Your task to perform on an android device: When is my next appointment? Image 0: 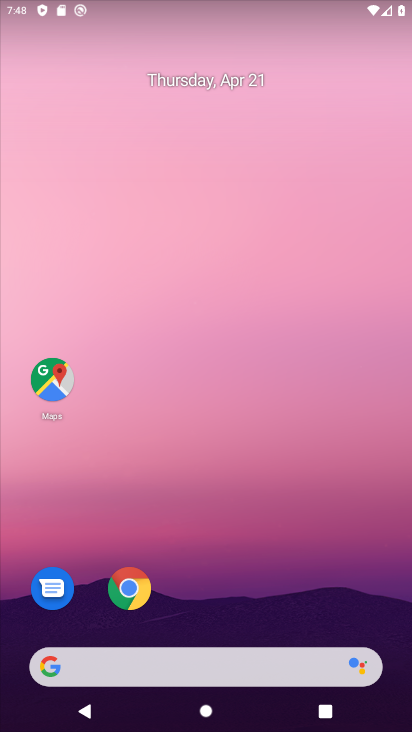
Step 0: drag from (234, 617) to (306, 52)
Your task to perform on an android device: When is my next appointment? Image 1: 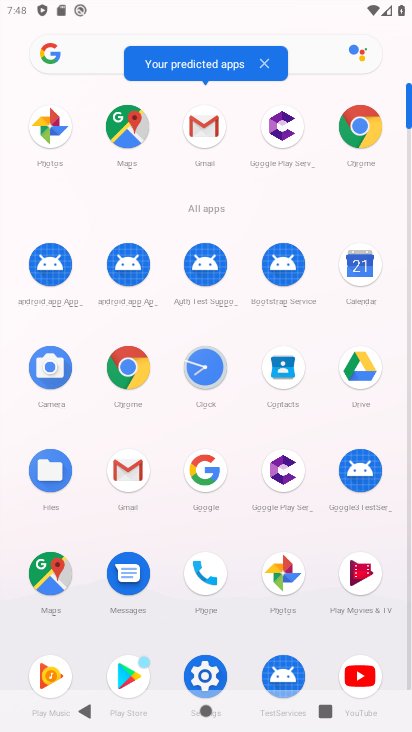
Step 1: click (362, 268)
Your task to perform on an android device: When is my next appointment? Image 2: 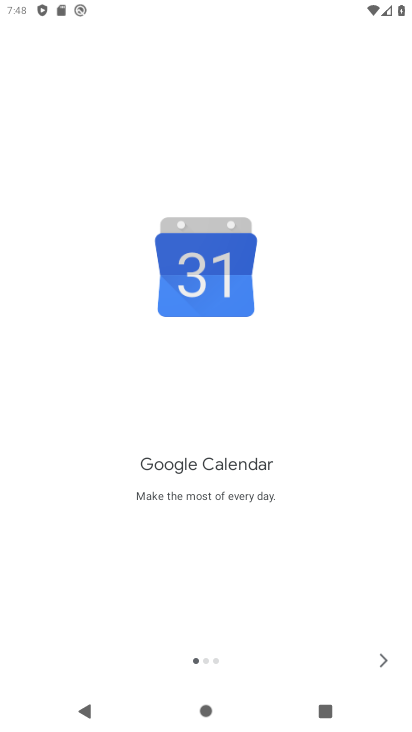
Step 2: click (391, 658)
Your task to perform on an android device: When is my next appointment? Image 3: 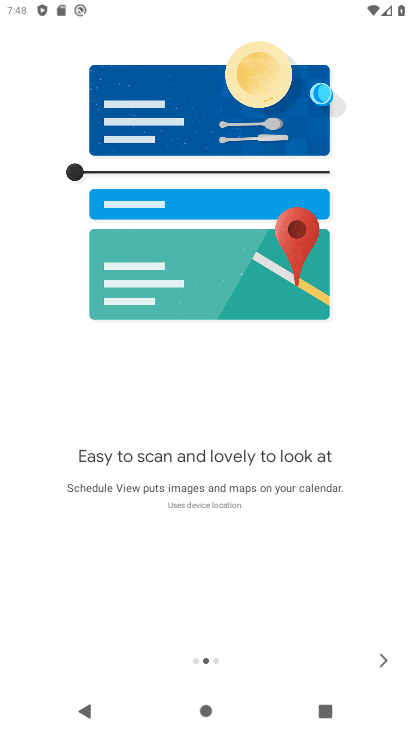
Step 3: click (391, 658)
Your task to perform on an android device: When is my next appointment? Image 4: 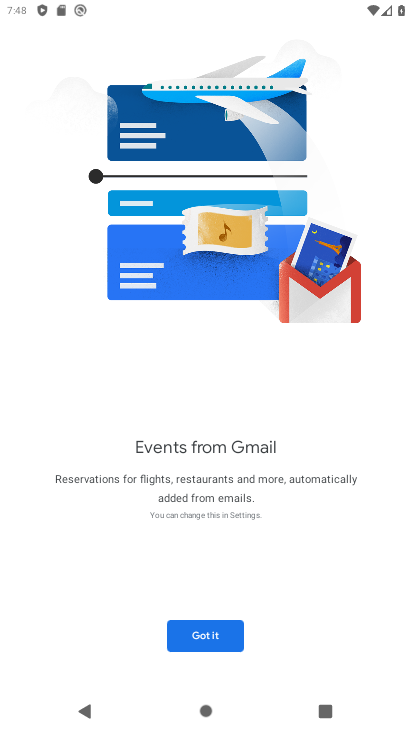
Step 4: click (391, 658)
Your task to perform on an android device: When is my next appointment? Image 5: 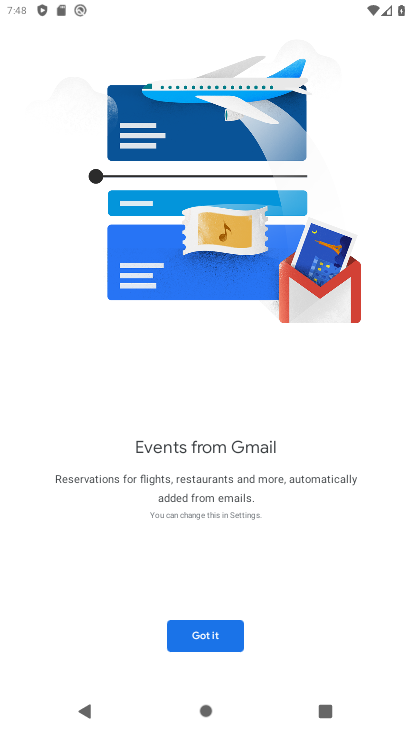
Step 5: click (202, 650)
Your task to perform on an android device: When is my next appointment? Image 6: 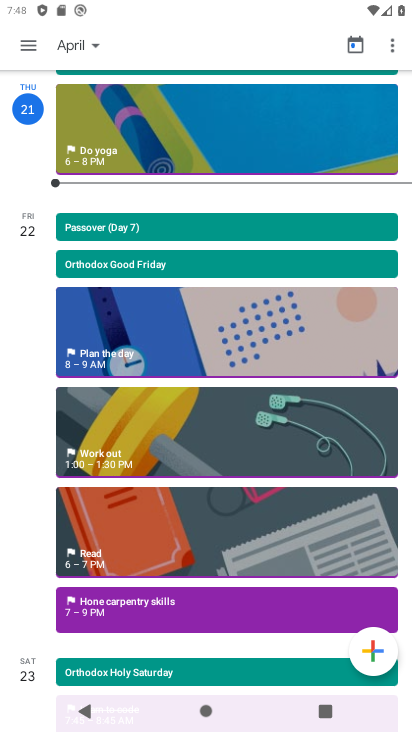
Step 6: task complete